Your task to perform on an android device: Go to location settings Image 0: 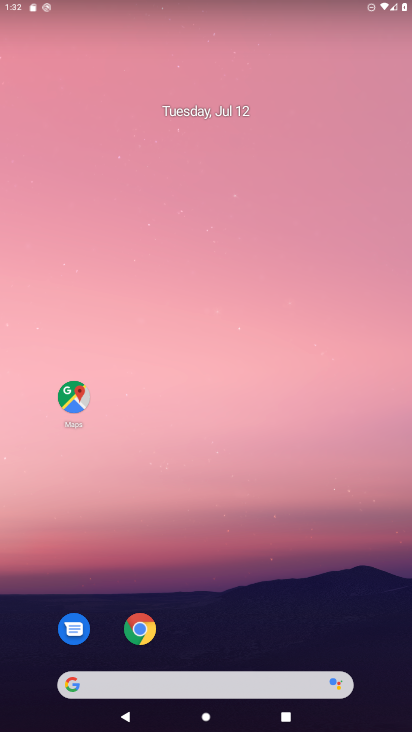
Step 0: drag from (205, 656) to (255, 8)
Your task to perform on an android device: Go to location settings Image 1: 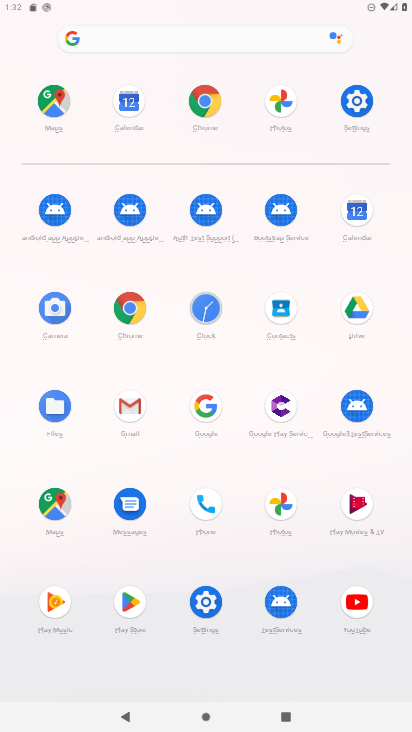
Step 1: click (353, 99)
Your task to perform on an android device: Go to location settings Image 2: 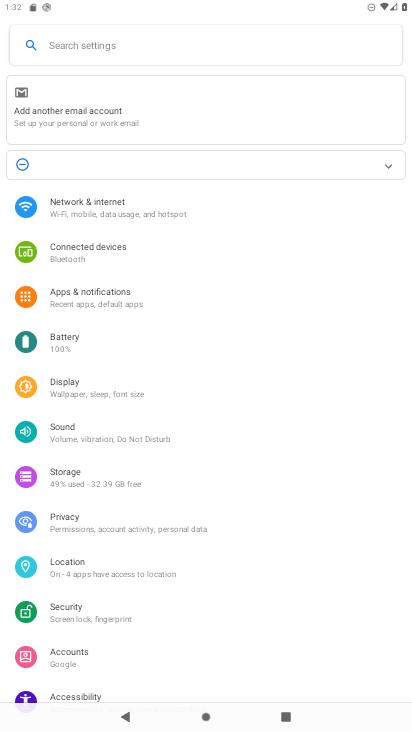
Step 2: click (90, 563)
Your task to perform on an android device: Go to location settings Image 3: 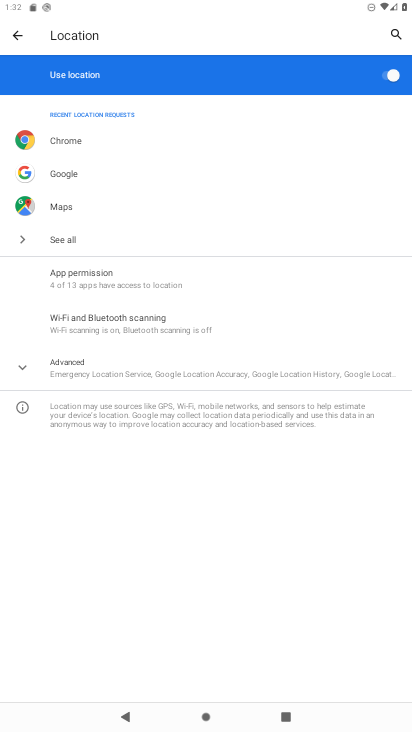
Step 3: click (25, 366)
Your task to perform on an android device: Go to location settings Image 4: 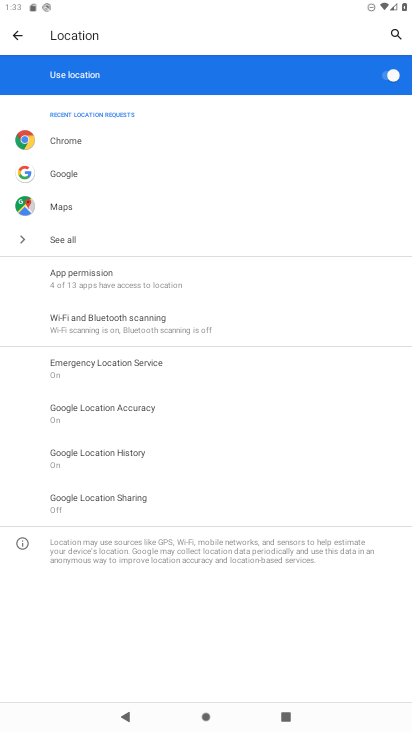
Step 4: task complete